Your task to perform on an android device: Show me the alarms in the clock app Image 0: 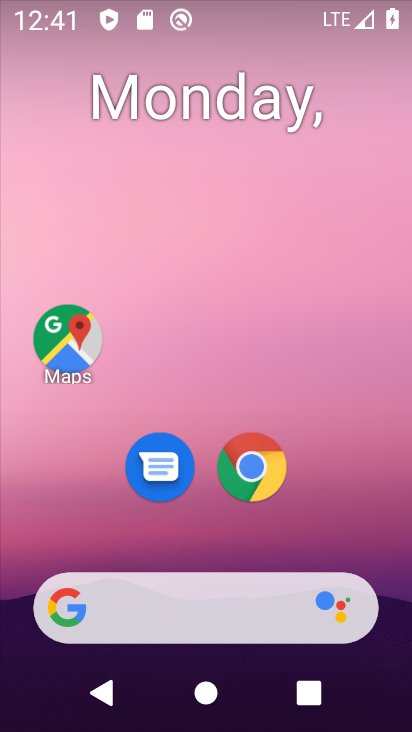
Step 0: drag from (393, 609) to (341, 67)
Your task to perform on an android device: Show me the alarms in the clock app Image 1: 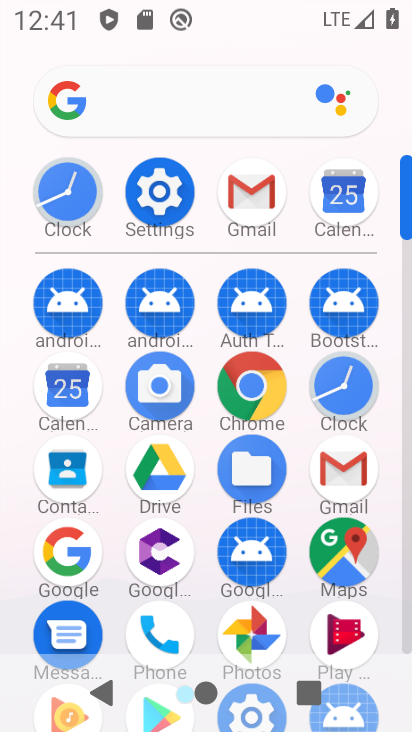
Step 1: click (407, 641)
Your task to perform on an android device: Show me the alarms in the clock app Image 2: 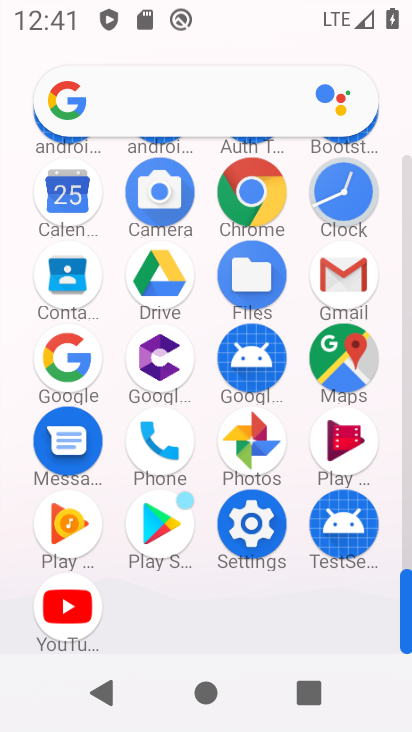
Step 2: click (341, 188)
Your task to perform on an android device: Show me the alarms in the clock app Image 3: 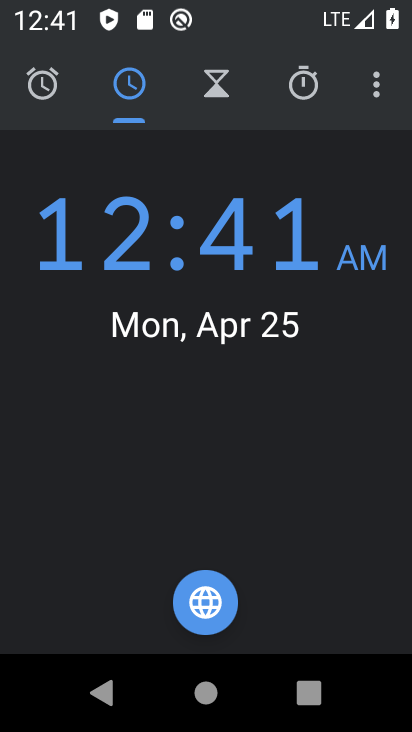
Step 3: click (41, 85)
Your task to perform on an android device: Show me the alarms in the clock app Image 4: 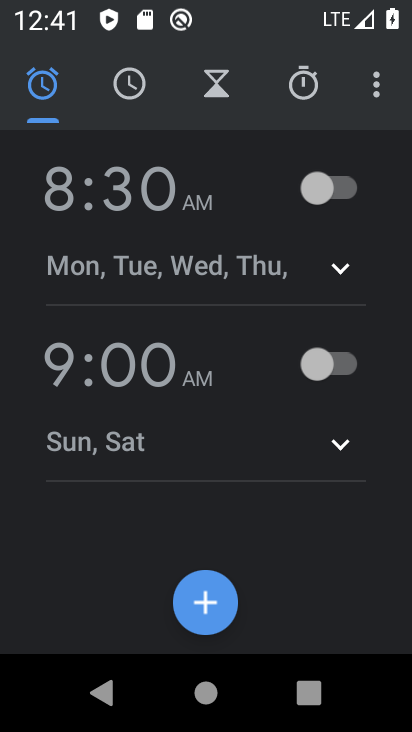
Step 4: click (99, 198)
Your task to perform on an android device: Show me the alarms in the clock app Image 5: 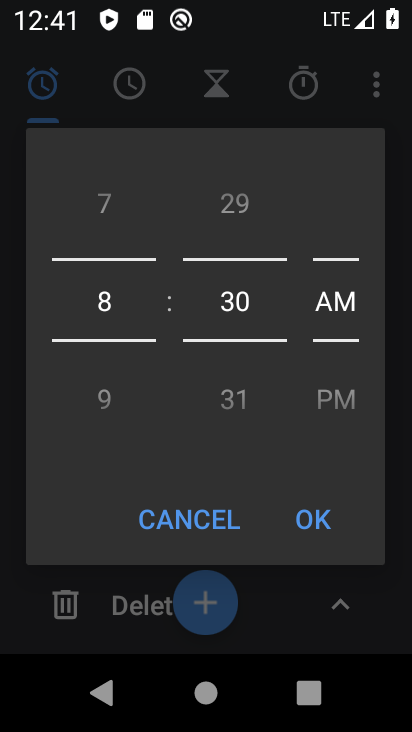
Step 5: task complete